Your task to perform on an android device: Turn on the flashlight Image 0: 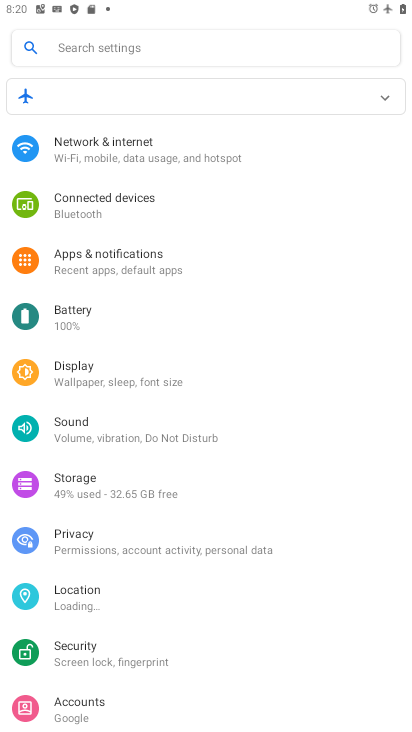
Step 0: drag from (123, 2) to (163, 327)
Your task to perform on an android device: Turn on the flashlight Image 1: 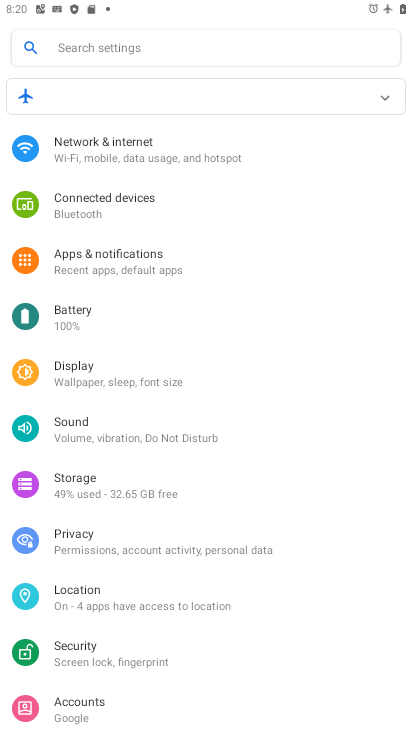
Step 1: drag from (370, 1) to (410, 282)
Your task to perform on an android device: Turn on the flashlight Image 2: 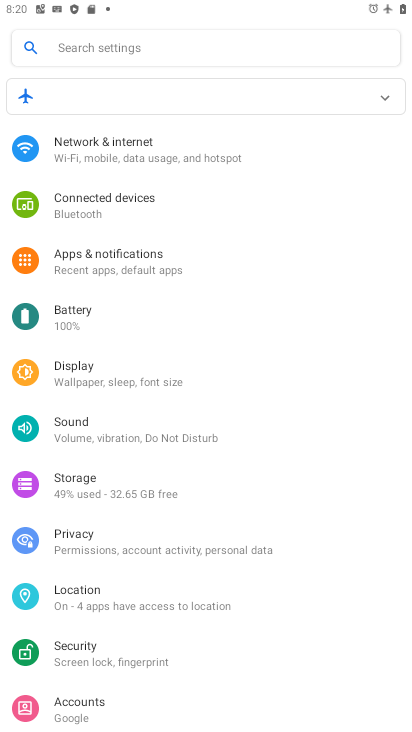
Step 2: drag from (278, 20) to (312, 361)
Your task to perform on an android device: Turn on the flashlight Image 3: 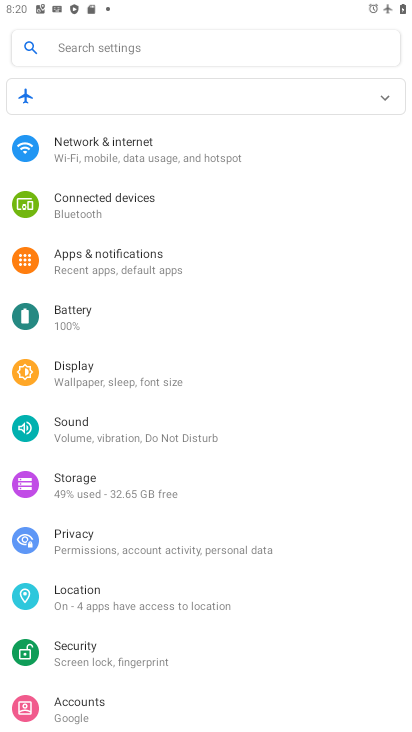
Step 3: drag from (185, 0) to (259, 432)
Your task to perform on an android device: Turn on the flashlight Image 4: 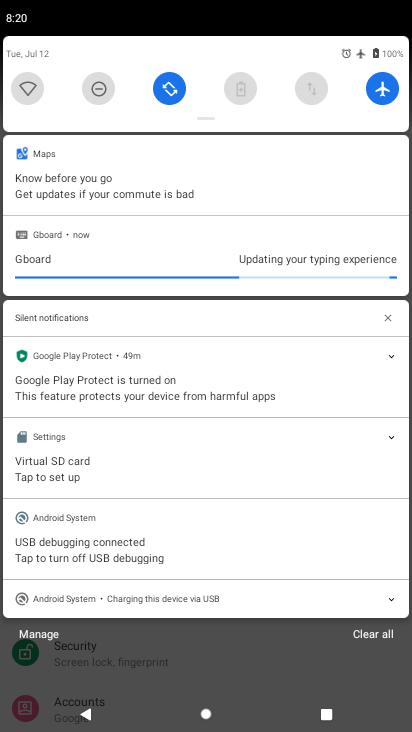
Step 4: drag from (295, 110) to (367, 506)
Your task to perform on an android device: Turn on the flashlight Image 5: 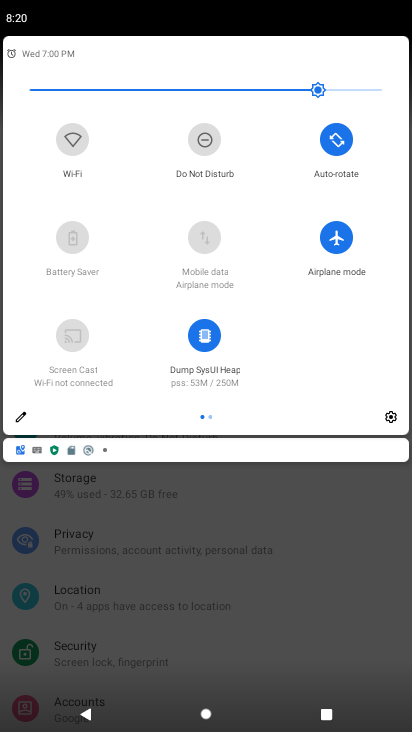
Step 5: drag from (339, 309) to (11, 366)
Your task to perform on an android device: Turn on the flashlight Image 6: 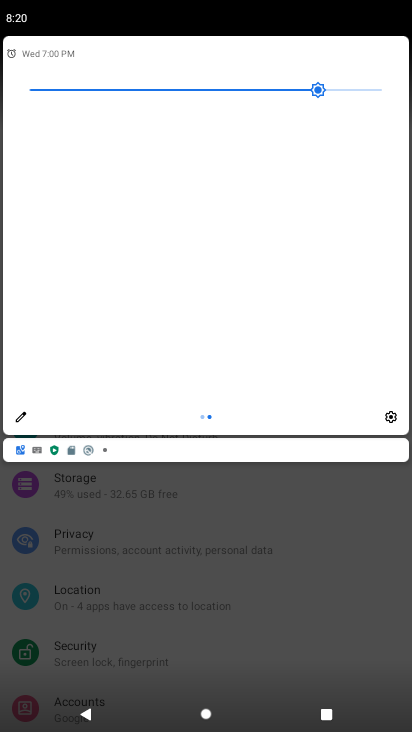
Step 6: click (16, 414)
Your task to perform on an android device: Turn on the flashlight Image 7: 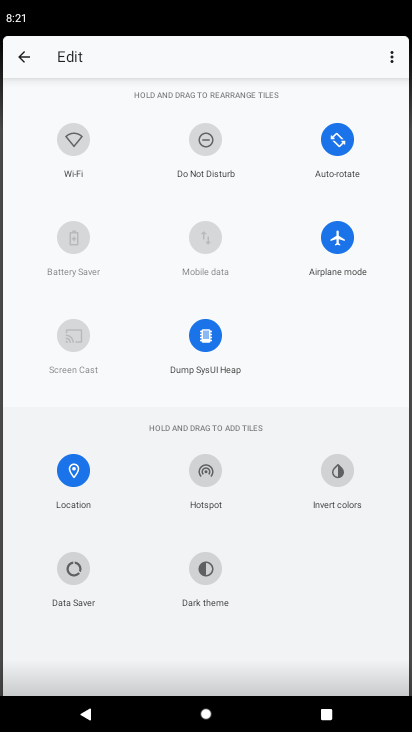
Step 7: task complete